Your task to perform on an android device: set the timer Image 0: 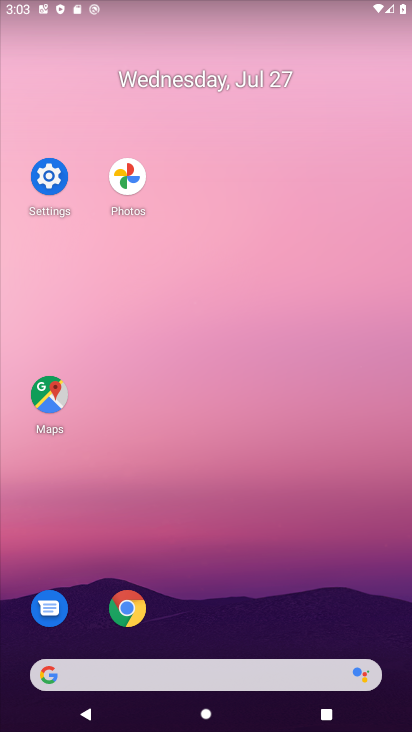
Step 0: drag from (319, 609) to (307, 144)
Your task to perform on an android device: set the timer Image 1: 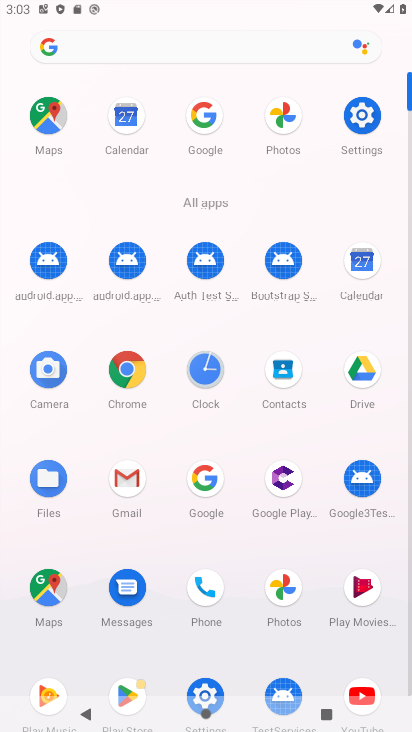
Step 1: drag from (201, 370) to (100, 267)
Your task to perform on an android device: set the timer Image 2: 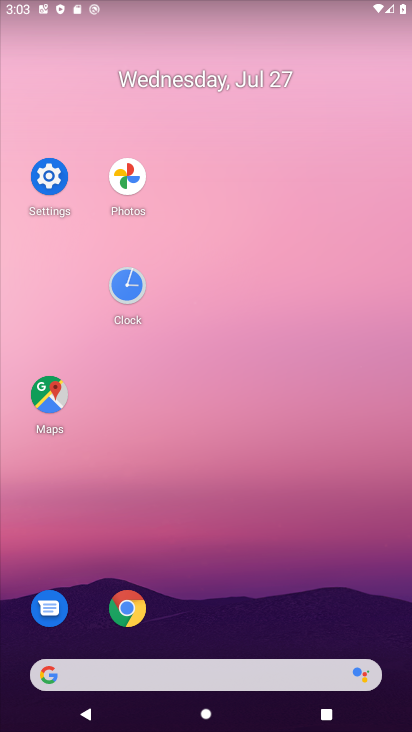
Step 2: click (130, 286)
Your task to perform on an android device: set the timer Image 3: 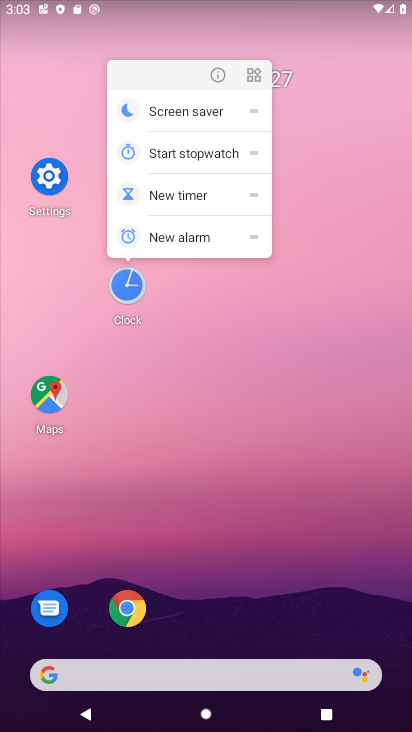
Step 3: click (135, 282)
Your task to perform on an android device: set the timer Image 4: 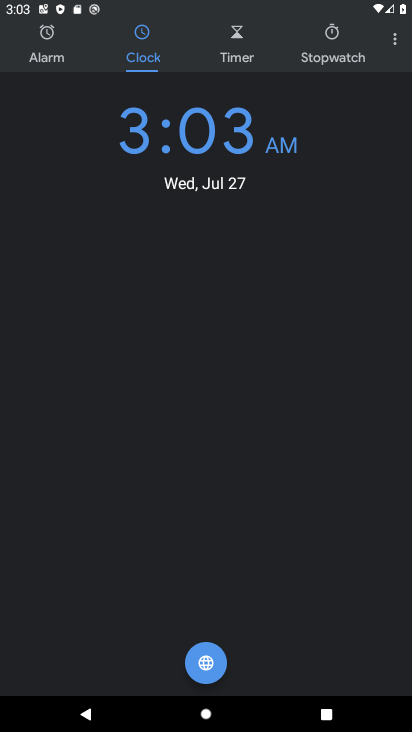
Step 4: click (244, 35)
Your task to perform on an android device: set the timer Image 5: 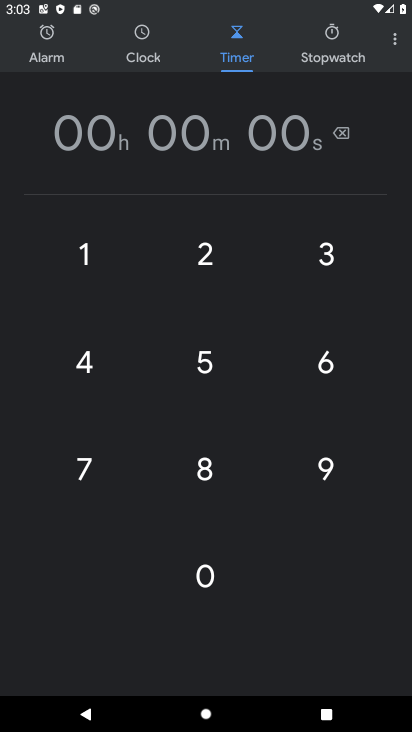
Step 5: click (177, 265)
Your task to perform on an android device: set the timer Image 6: 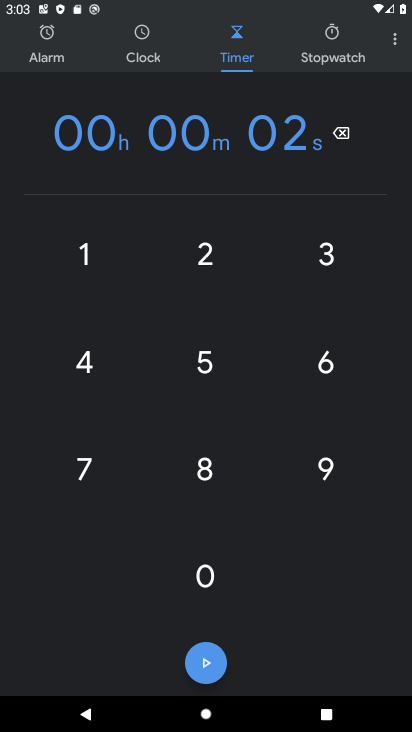
Step 6: click (189, 257)
Your task to perform on an android device: set the timer Image 7: 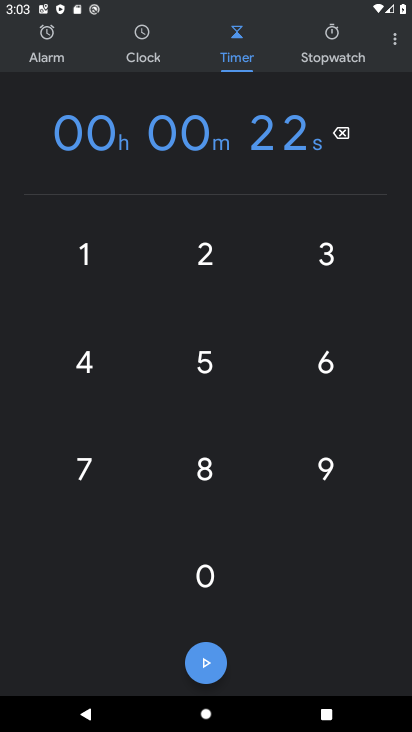
Step 7: click (189, 257)
Your task to perform on an android device: set the timer Image 8: 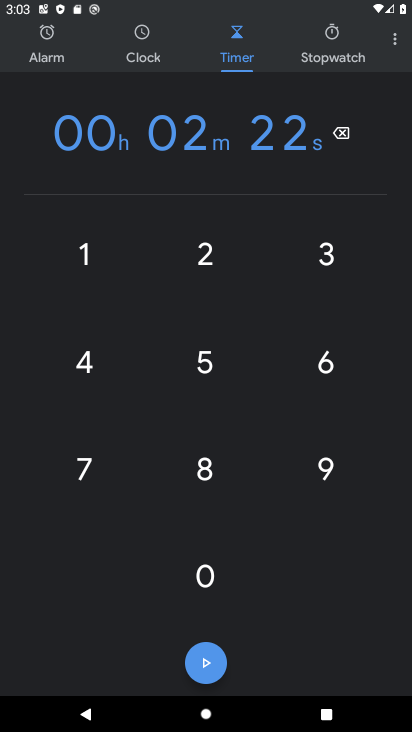
Step 8: task complete